Your task to perform on an android device: Open wifi settings Image 0: 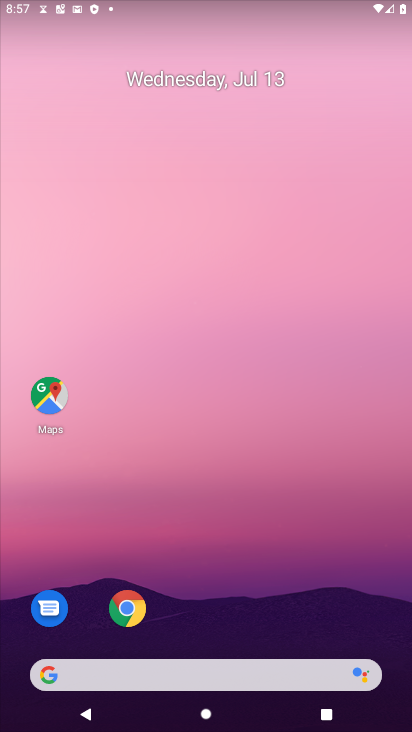
Step 0: drag from (302, 273) to (357, 3)
Your task to perform on an android device: Open wifi settings Image 1: 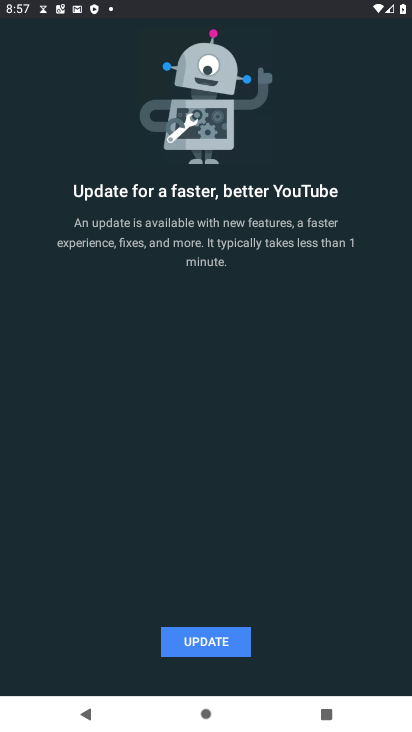
Step 1: press home button
Your task to perform on an android device: Open wifi settings Image 2: 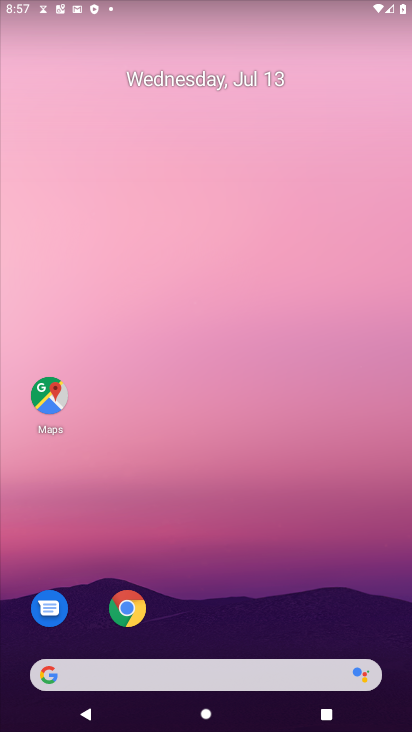
Step 2: drag from (264, 645) to (394, 34)
Your task to perform on an android device: Open wifi settings Image 3: 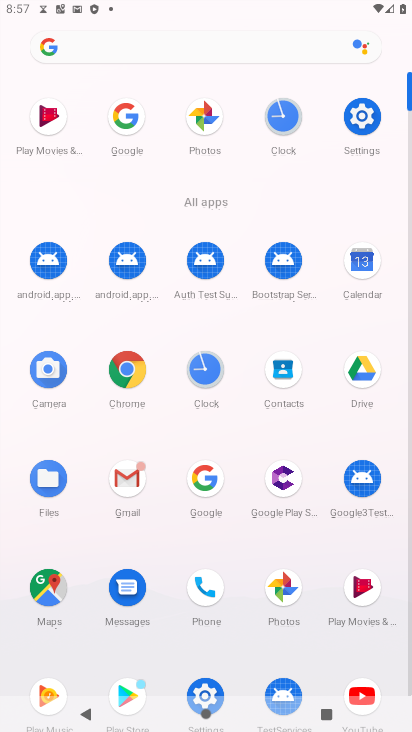
Step 3: click (207, 691)
Your task to perform on an android device: Open wifi settings Image 4: 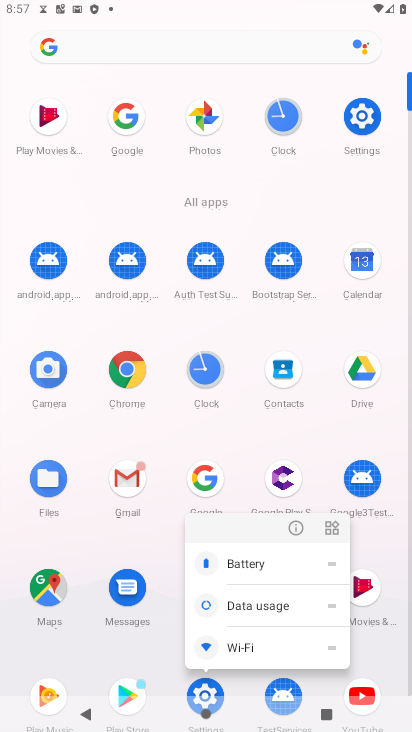
Step 4: click (207, 691)
Your task to perform on an android device: Open wifi settings Image 5: 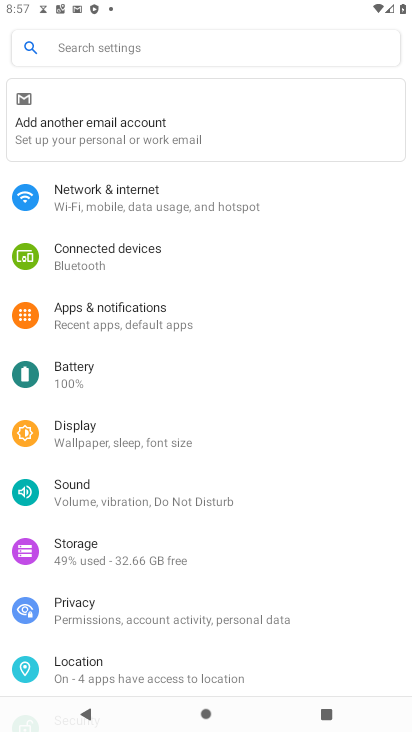
Step 5: click (135, 206)
Your task to perform on an android device: Open wifi settings Image 6: 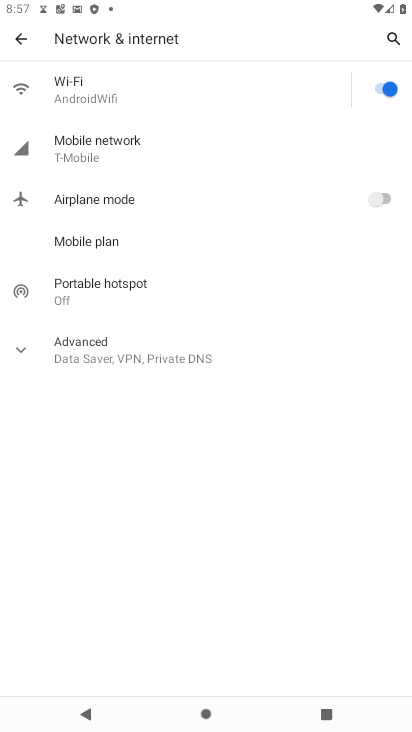
Step 6: click (126, 95)
Your task to perform on an android device: Open wifi settings Image 7: 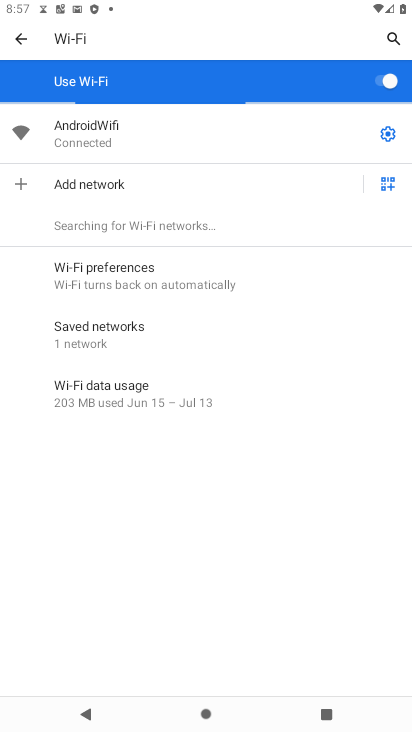
Step 7: task complete